Your task to perform on an android device: turn off priority inbox in the gmail app Image 0: 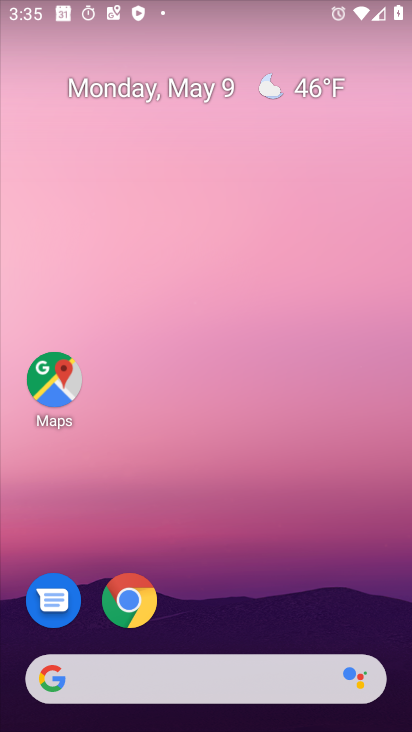
Step 0: drag from (220, 613) to (292, 169)
Your task to perform on an android device: turn off priority inbox in the gmail app Image 1: 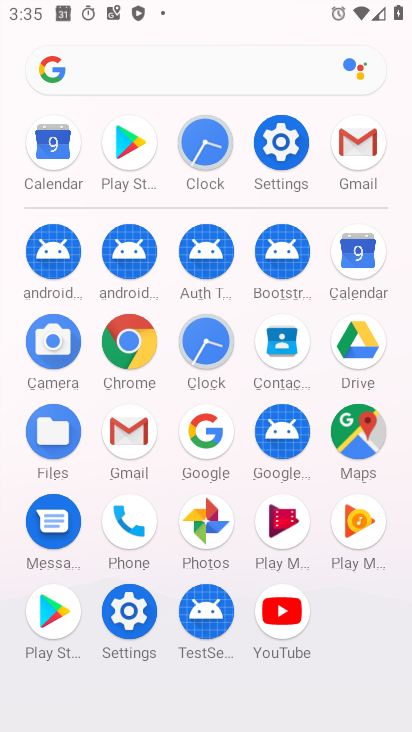
Step 1: click (361, 141)
Your task to perform on an android device: turn off priority inbox in the gmail app Image 2: 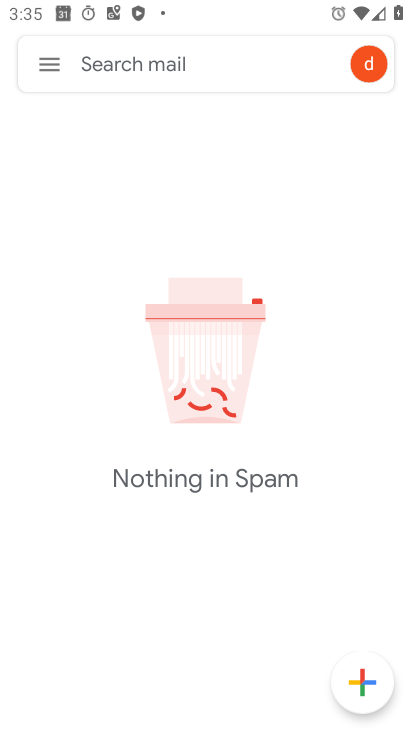
Step 2: click (50, 58)
Your task to perform on an android device: turn off priority inbox in the gmail app Image 3: 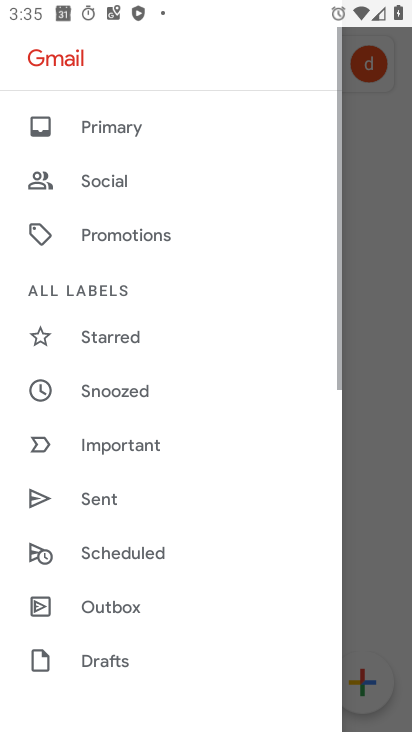
Step 3: drag from (153, 605) to (207, 122)
Your task to perform on an android device: turn off priority inbox in the gmail app Image 4: 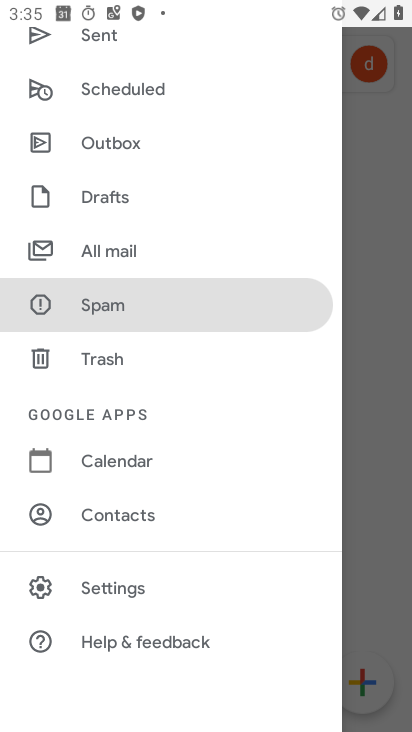
Step 4: drag from (125, 615) to (209, 120)
Your task to perform on an android device: turn off priority inbox in the gmail app Image 5: 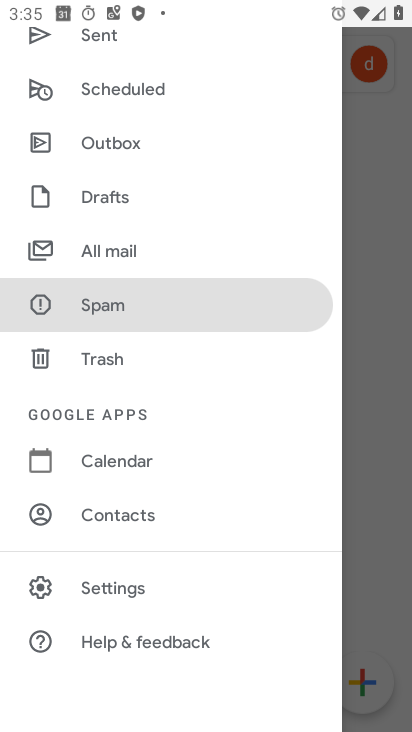
Step 5: click (115, 581)
Your task to perform on an android device: turn off priority inbox in the gmail app Image 6: 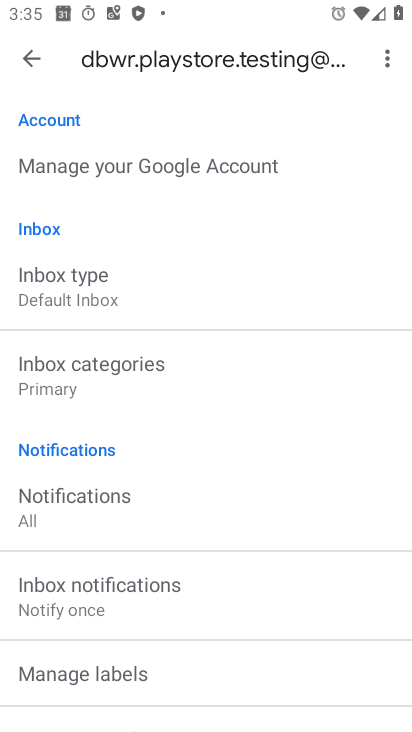
Step 6: click (99, 285)
Your task to perform on an android device: turn off priority inbox in the gmail app Image 7: 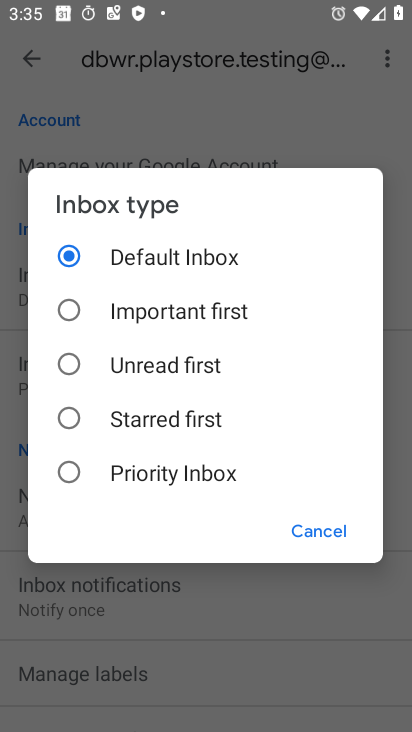
Step 7: task complete